Your task to perform on an android device: uninstall "AliExpress" Image 0: 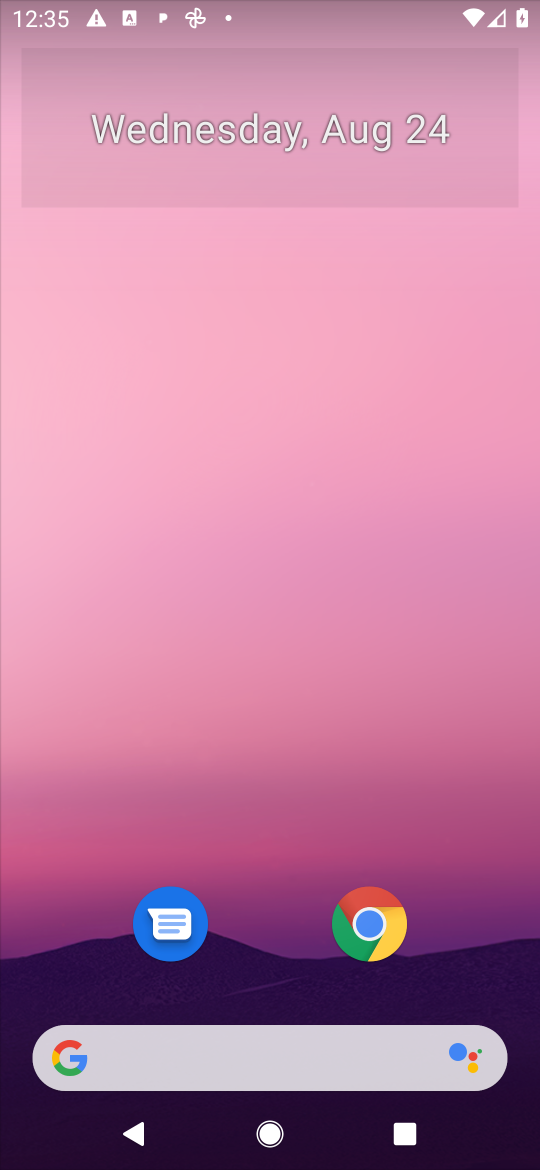
Step 0: press home button
Your task to perform on an android device: uninstall "AliExpress" Image 1: 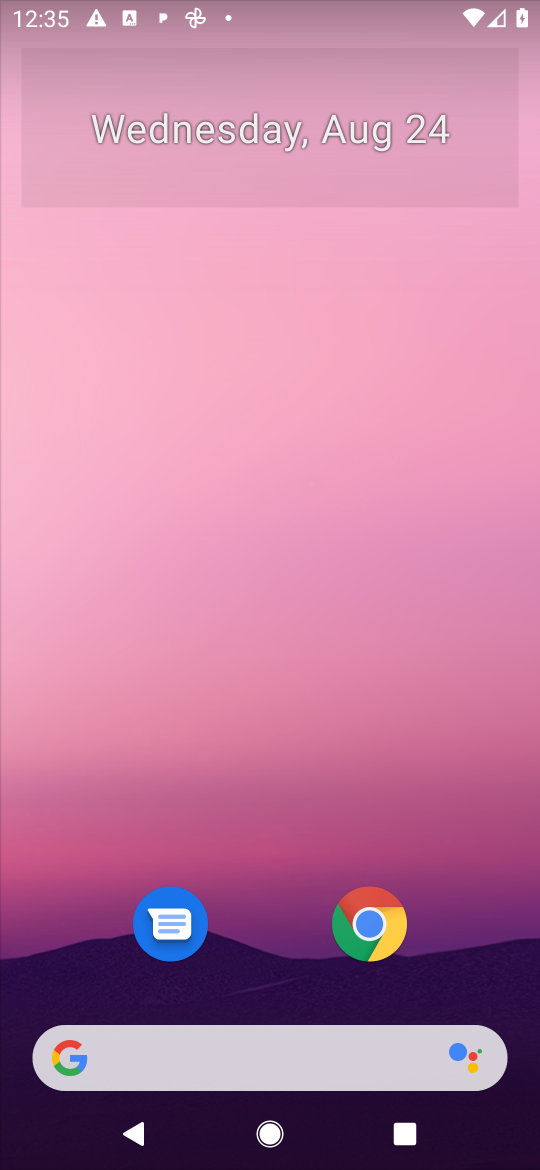
Step 1: drag from (470, 904) to (484, 202)
Your task to perform on an android device: uninstall "AliExpress" Image 2: 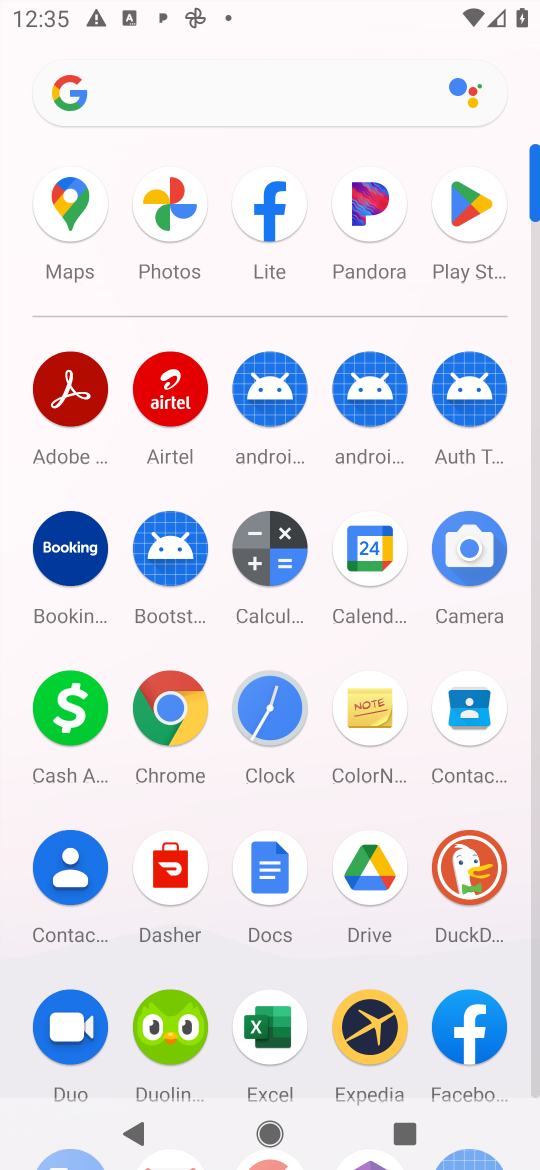
Step 2: click (476, 206)
Your task to perform on an android device: uninstall "AliExpress" Image 3: 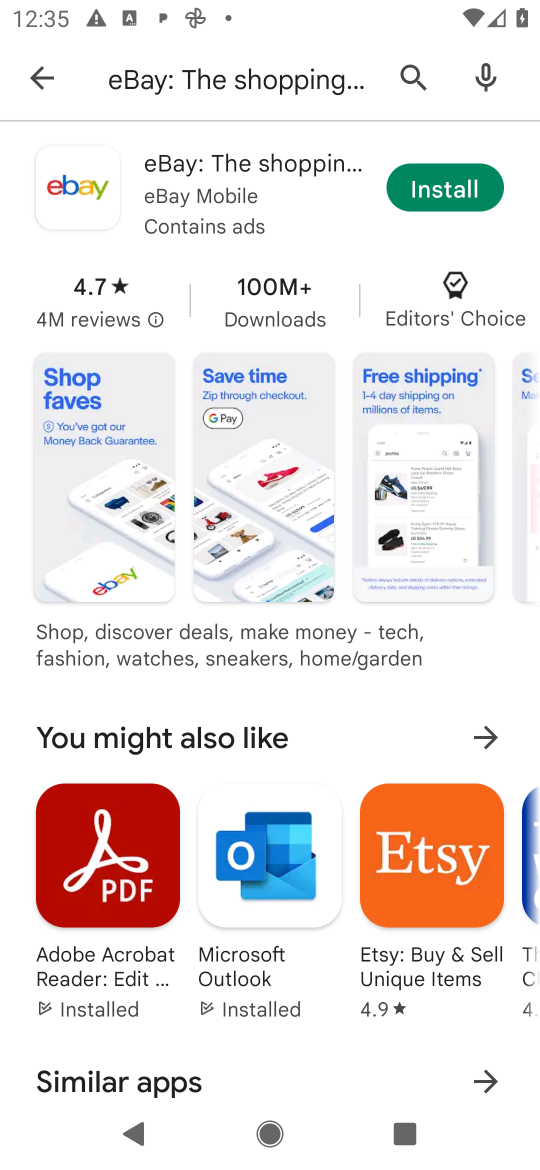
Step 3: press back button
Your task to perform on an android device: uninstall "AliExpress" Image 4: 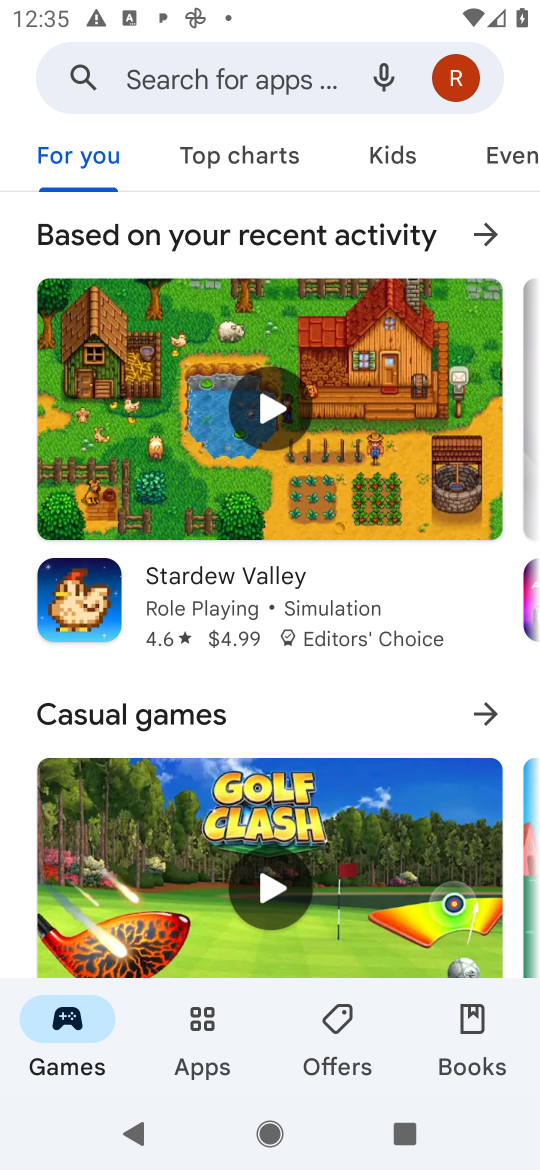
Step 4: click (288, 67)
Your task to perform on an android device: uninstall "AliExpress" Image 5: 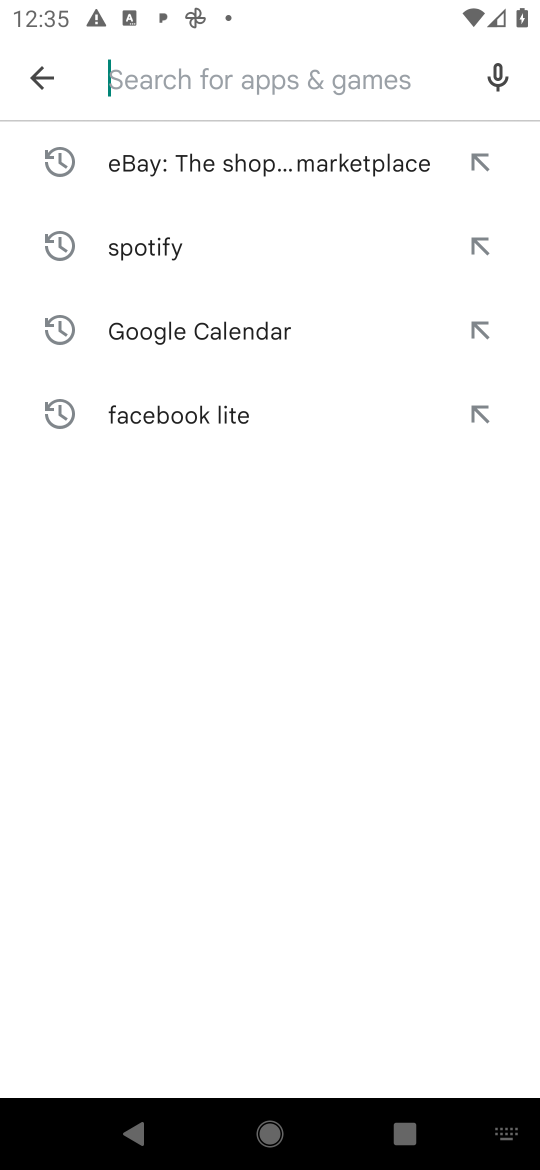
Step 5: press enter
Your task to perform on an android device: uninstall "AliExpress" Image 6: 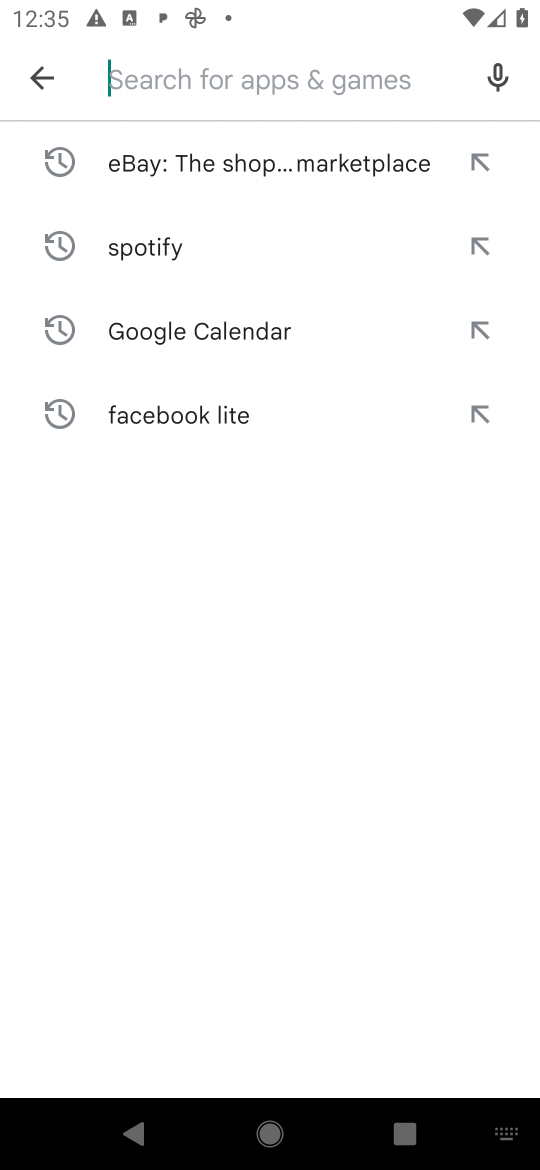
Step 6: type "aliexpress"
Your task to perform on an android device: uninstall "AliExpress" Image 7: 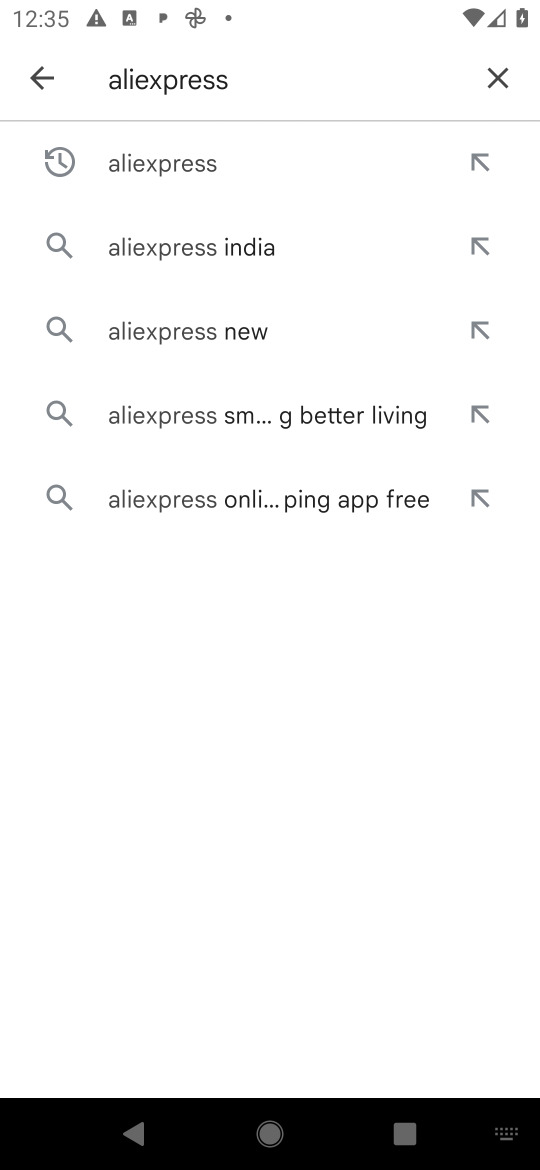
Step 7: click (221, 167)
Your task to perform on an android device: uninstall "AliExpress" Image 8: 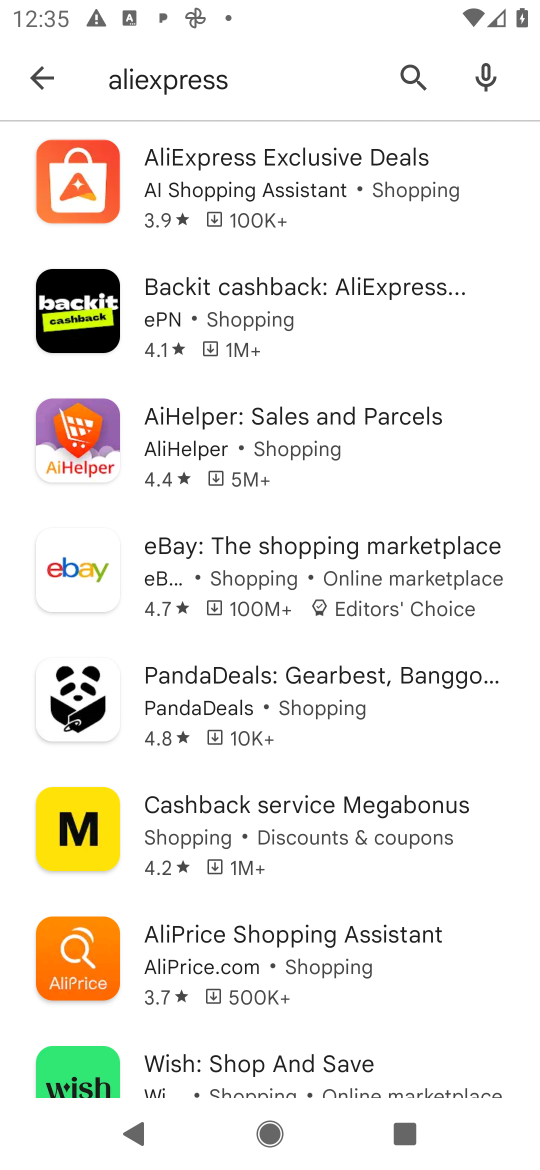
Step 8: task complete